Your task to perform on an android device: find snoozed emails in the gmail app Image 0: 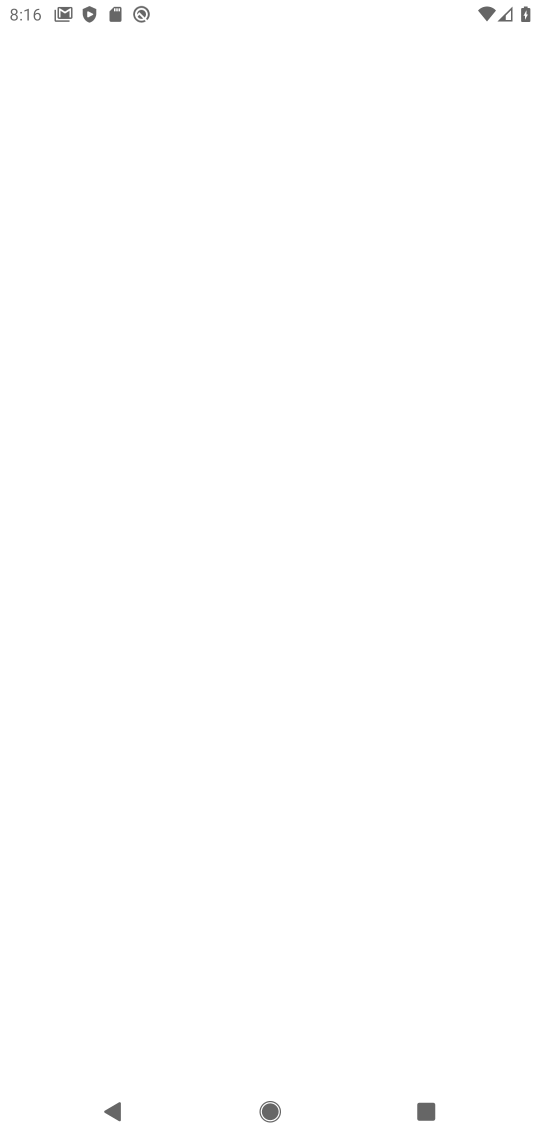
Step 0: press home button
Your task to perform on an android device: find snoozed emails in the gmail app Image 1: 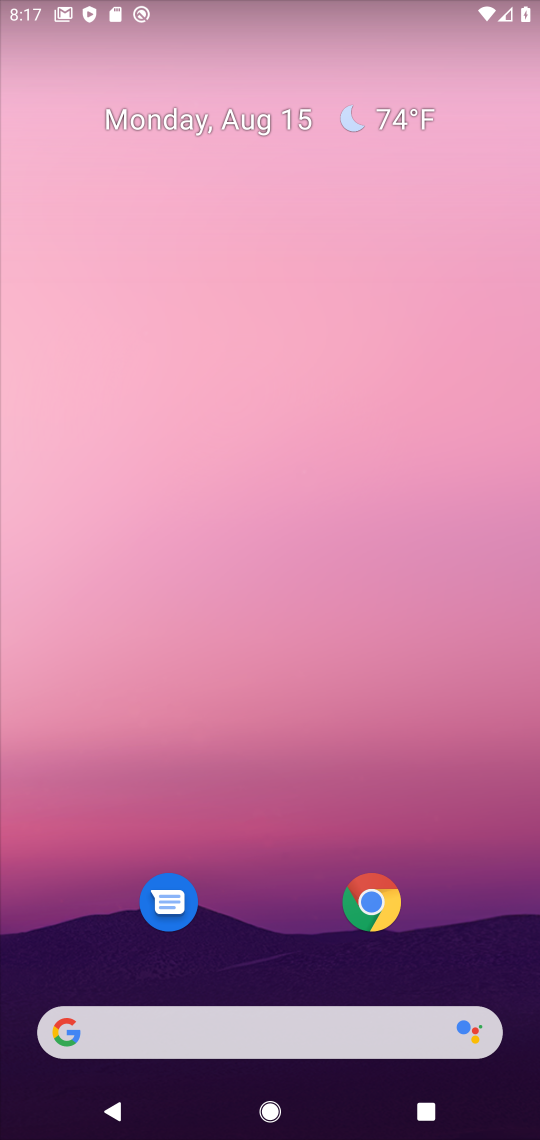
Step 1: drag from (524, 935) to (270, 38)
Your task to perform on an android device: find snoozed emails in the gmail app Image 2: 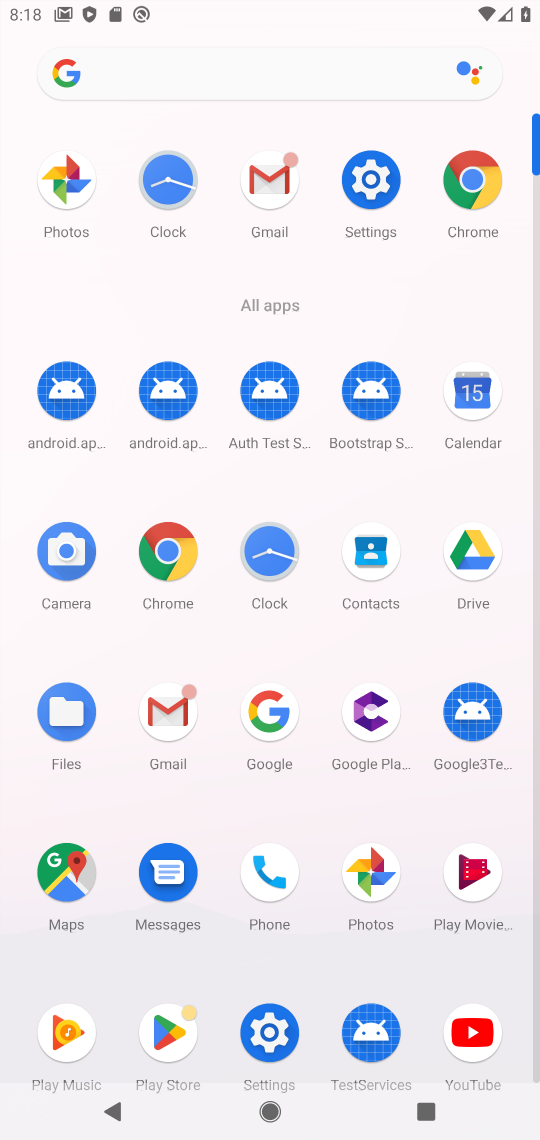
Step 2: click (167, 726)
Your task to perform on an android device: find snoozed emails in the gmail app Image 3: 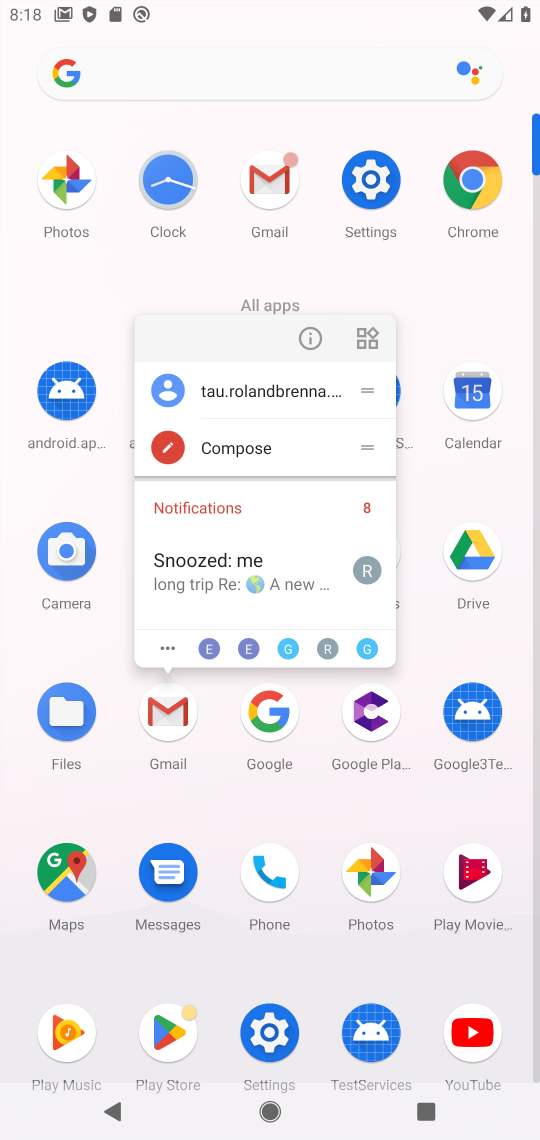
Step 3: click (167, 726)
Your task to perform on an android device: find snoozed emails in the gmail app Image 4: 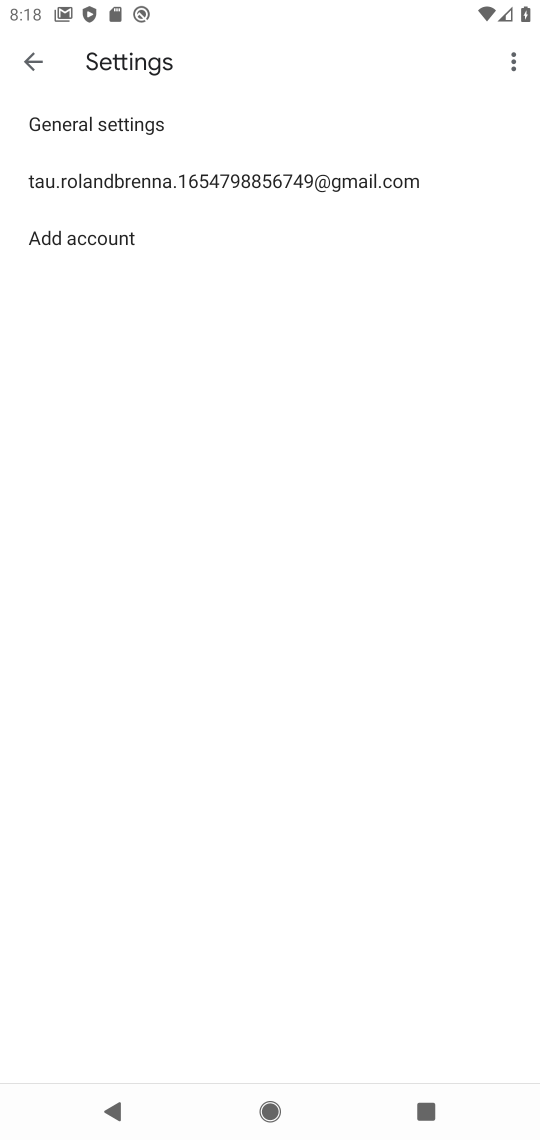
Step 4: task complete